Your task to perform on an android device: Open ESPN.com Image 0: 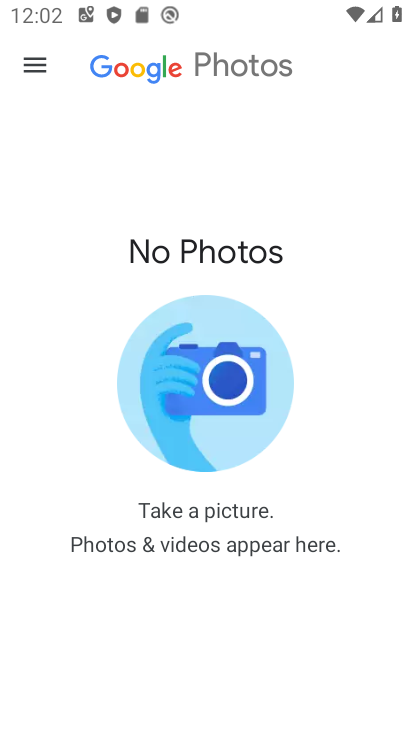
Step 0: drag from (176, 627) to (242, 175)
Your task to perform on an android device: Open ESPN.com Image 1: 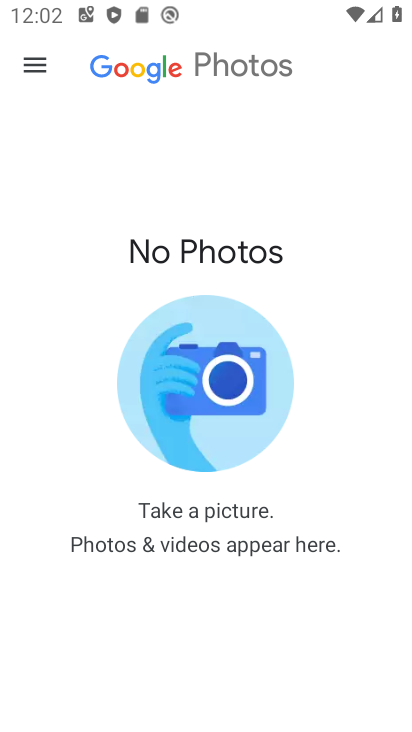
Step 1: press back button
Your task to perform on an android device: Open ESPN.com Image 2: 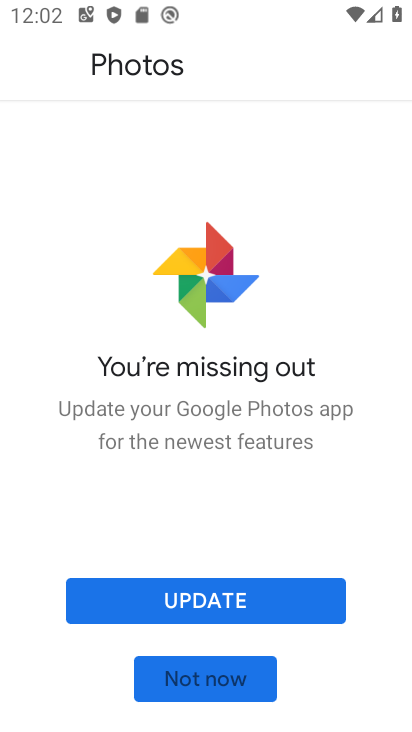
Step 2: press back button
Your task to perform on an android device: Open ESPN.com Image 3: 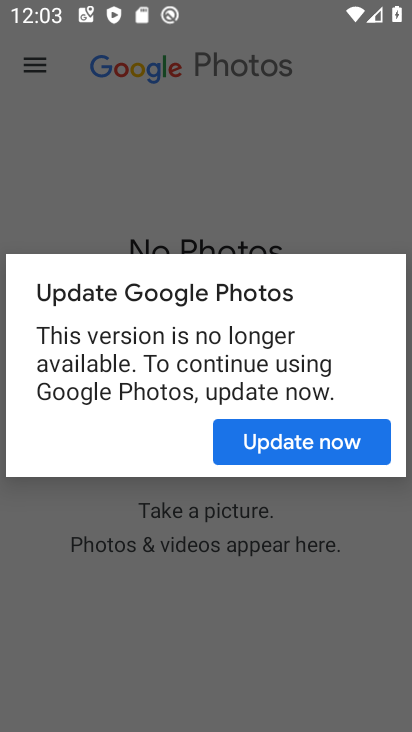
Step 3: press home button
Your task to perform on an android device: Open ESPN.com Image 4: 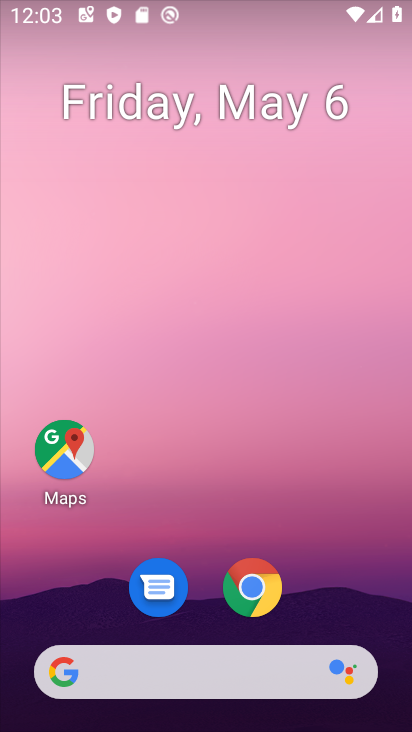
Step 4: click (242, 578)
Your task to perform on an android device: Open ESPN.com Image 5: 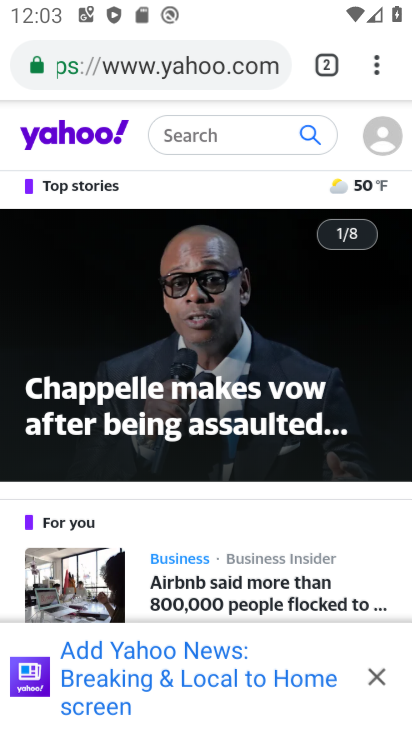
Step 5: click (327, 73)
Your task to perform on an android device: Open ESPN.com Image 6: 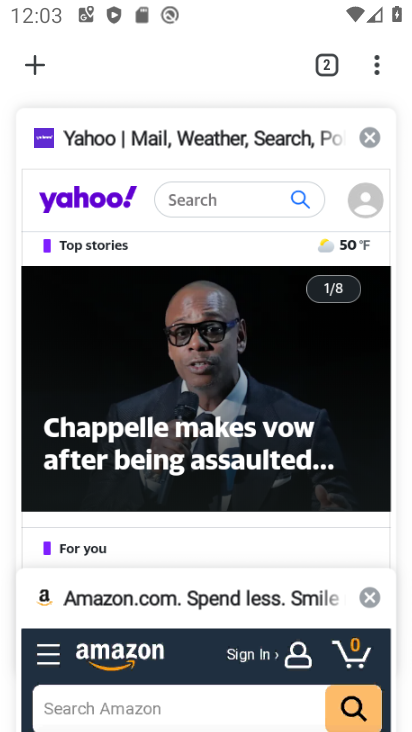
Step 6: click (35, 58)
Your task to perform on an android device: Open ESPN.com Image 7: 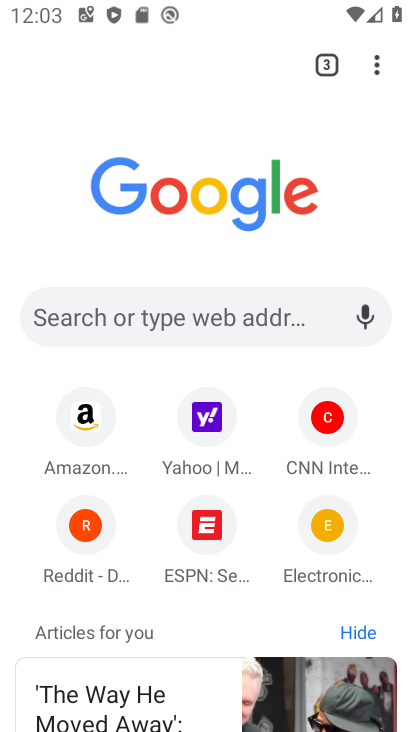
Step 7: click (208, 523)
Your task to perform on an android device: Open ESPN.com Image 8: 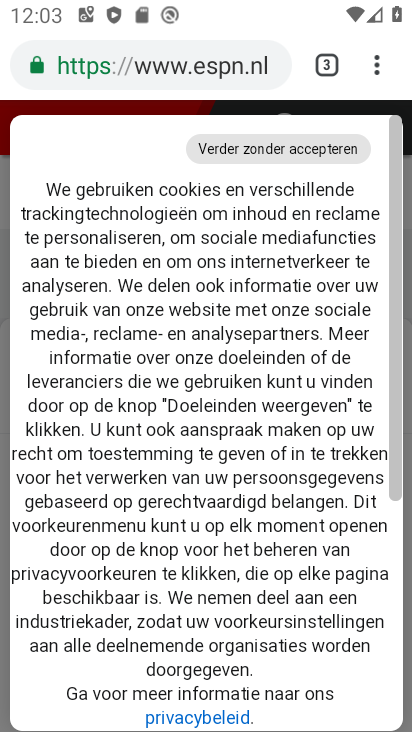
Step 8: task complete